Your task to perform on an android device: Go to Android settings Image 0: 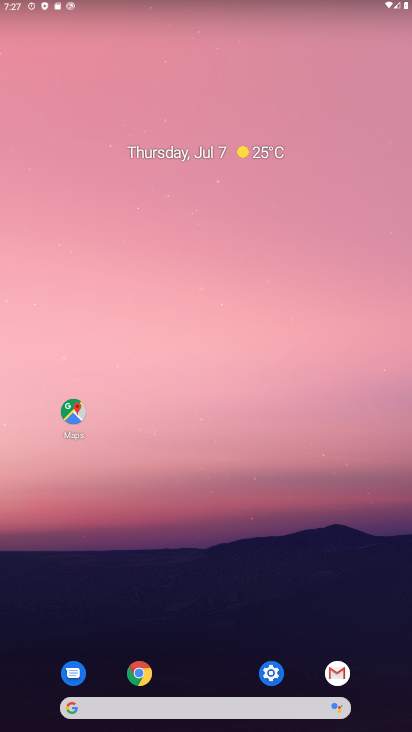
Step 0: click (269, 683)
Your task to perform on an android device: Go to Android settings Image 1: 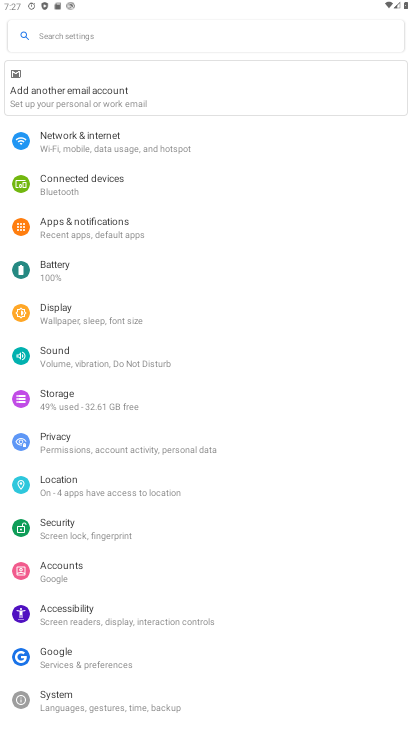
Step 1: click (88, 44)
Your task to perform on an android device: Go to Android settings Image 2: 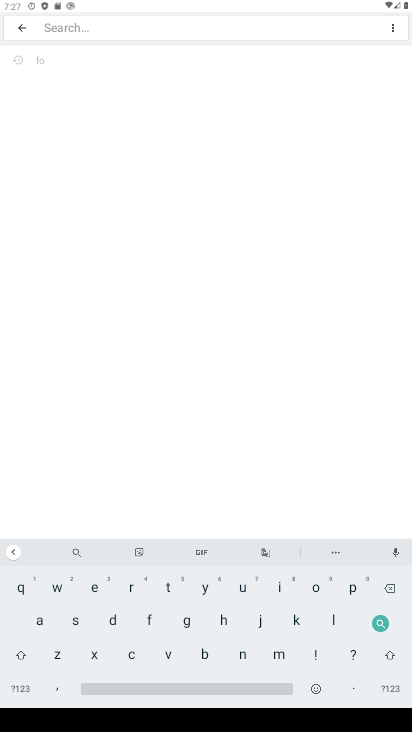
Step 2: click (42, 615)
Your task to perform on an android device: Go to Android settings Image 3: 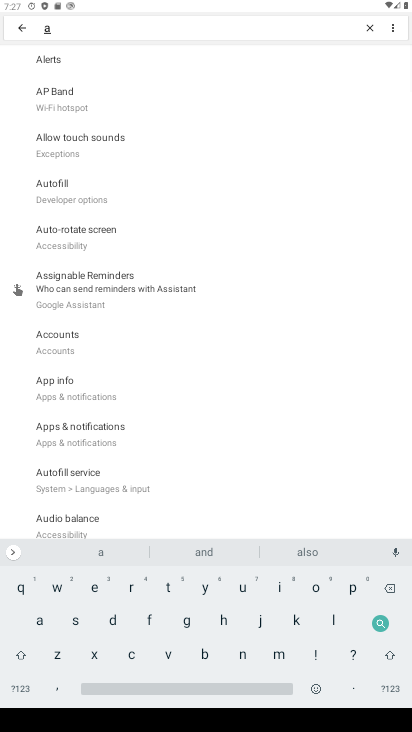
Step 3: click (253, 656)
Your task to perform on an android device: Go to Android settings Image 4: 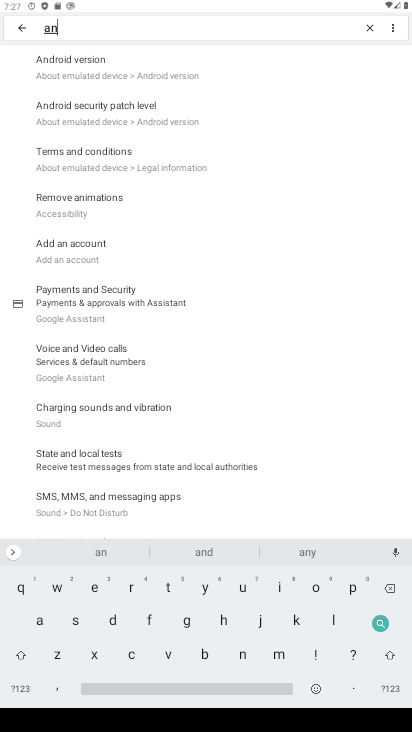
Step 4: click (128, 68)
Your task to perform on an android device: Go to Android settings Image 5: 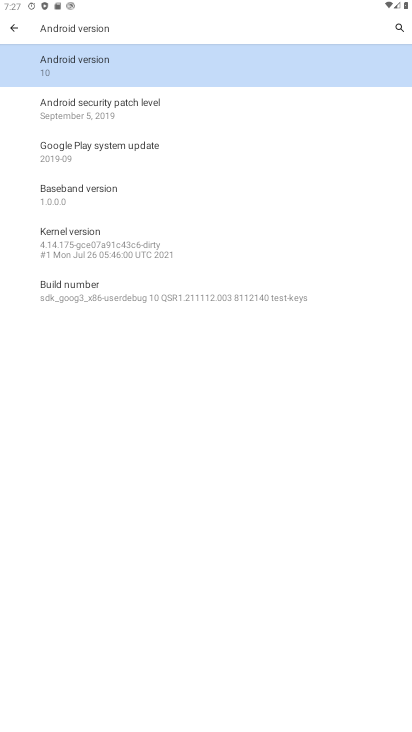
Step 5: click (79, 61)
Your task to perform on an android device: Go to Android settings Image 6: 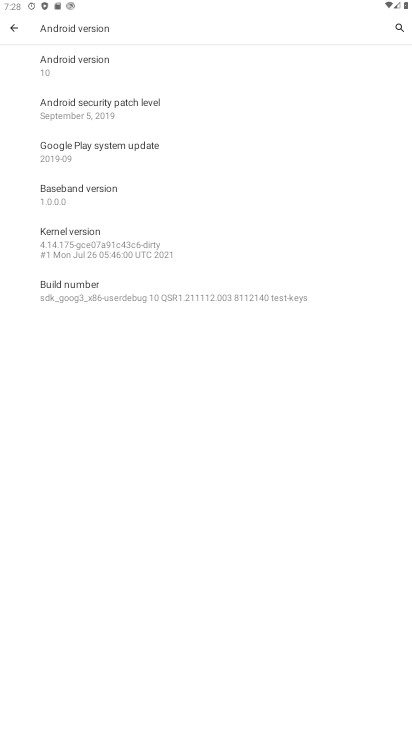
Step 6: task complete